Your task to perform on an android device: toggle sleep mode Image 0: 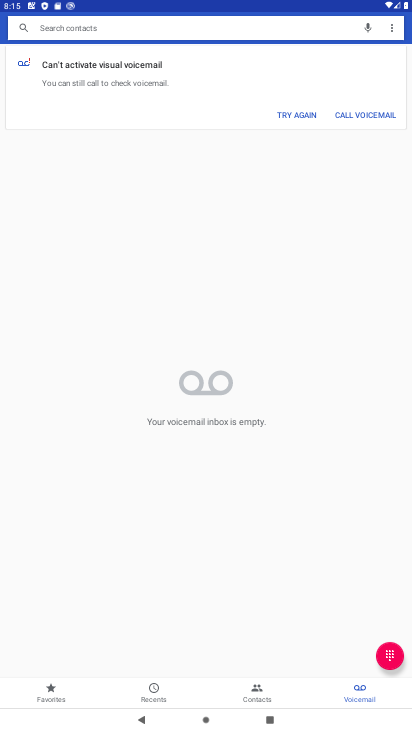
Step 0: press home button
Your task to perform on an android device: toggle sleep mode Image 1: 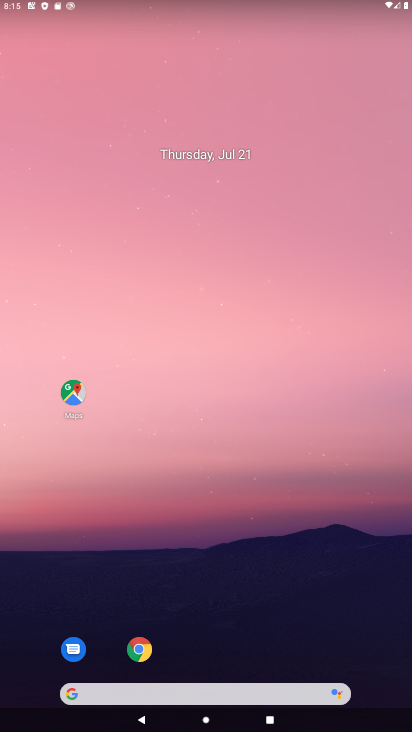
Step 1: drag from (246, 660) to (208, 53)
Your task to perform on an android device: toggle sleep mode Image 2: 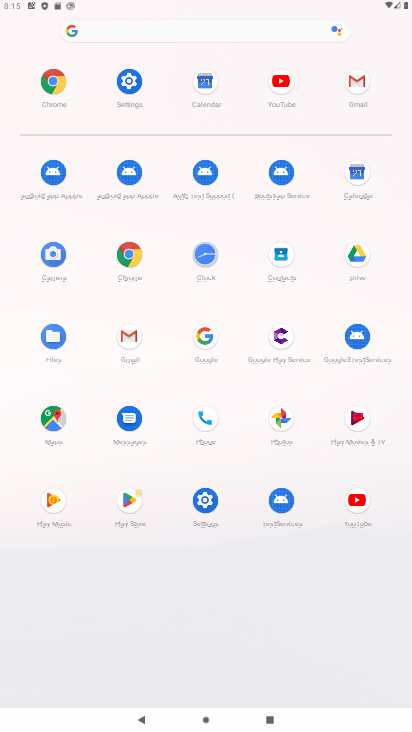
Step 2: click (133, 94)
Your task to perform on an android device: toggle sleep mode Image 3: 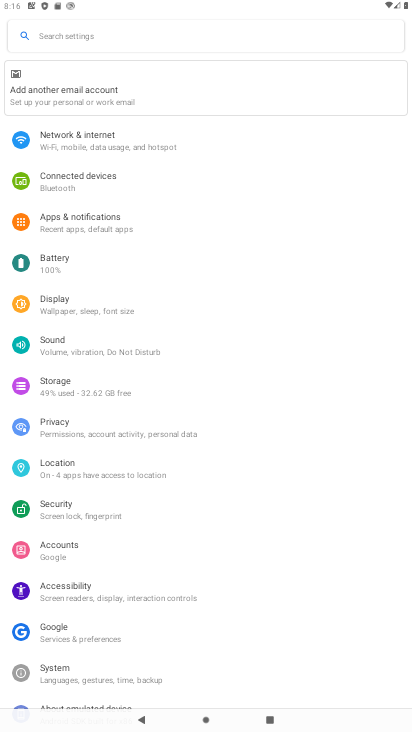
Step 3: click (179, 30)
Your task to perform on an android device: toggle sleep mode Image 4: 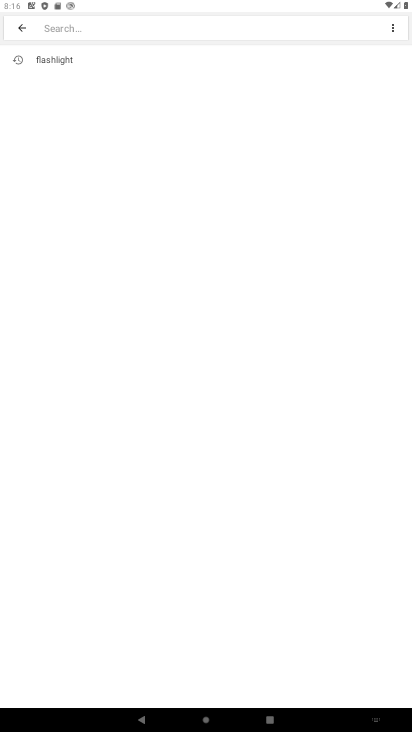
Step 4: type "sleep mode"
Your task to perform on an android device: toggle sleep mode Image 5: 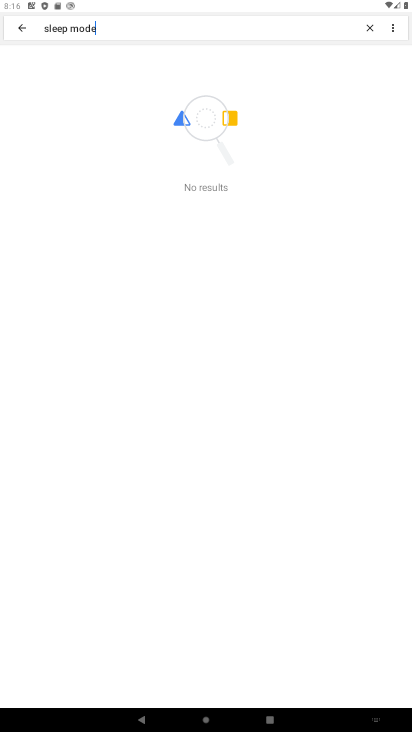
Step 5: task complete